Your task to perform on an android device: Open Google Chrome Image 0: 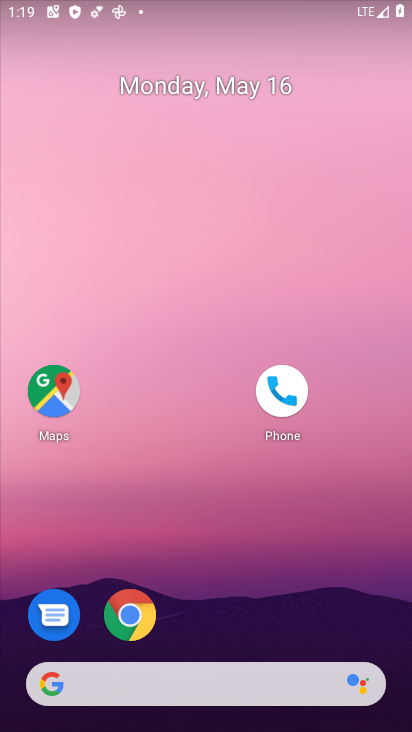
Step 0: drag from (325, 665) to (244, 92)
Your task to perform on an android device: Open Google Chrome Image 1: 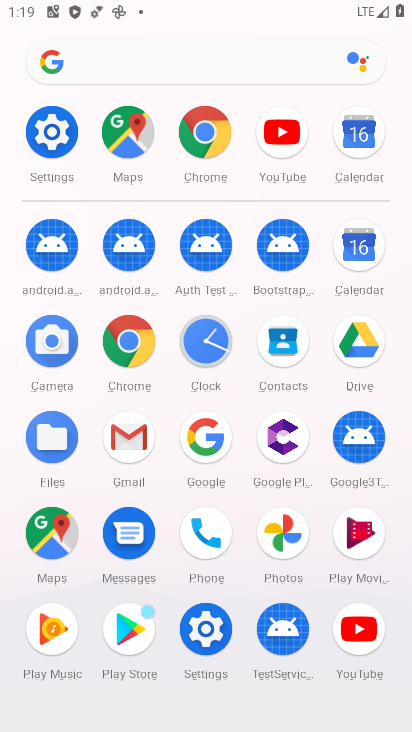
Step 1: click (132, 339)
Your task to perform on an android device: Open Google Chrome Image 2: 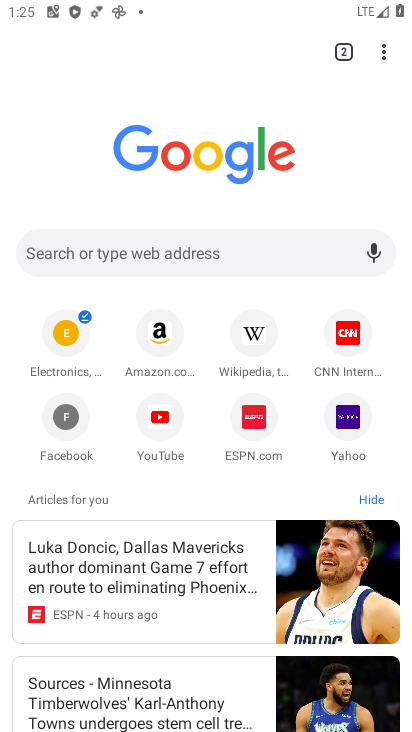
Step 2: task complete